Your task to perform on an android device: open chrome privacy settings Image 0: 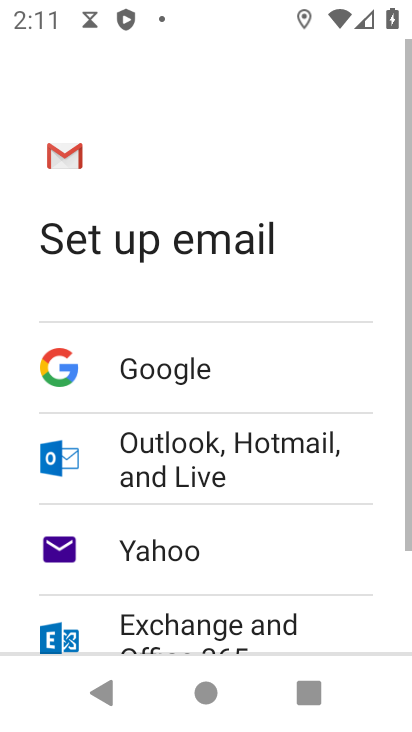
Step 0: press back button
Your task to perform on an android device: open chrome privacy settings Image 1: 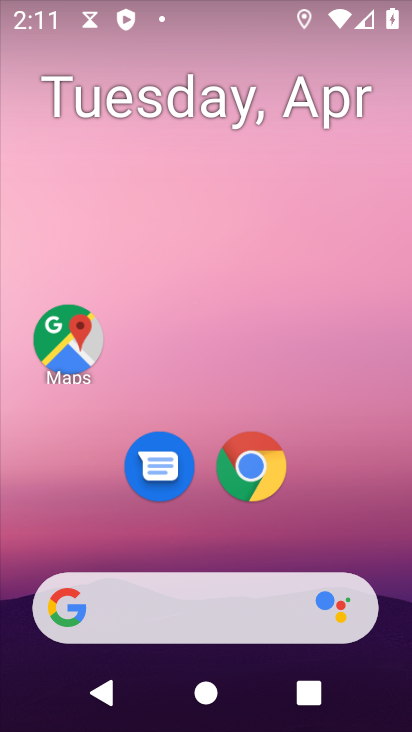
Step 1: click (252, 465)
Your task to perform on an android device: open chrome privacy settings Image 2: 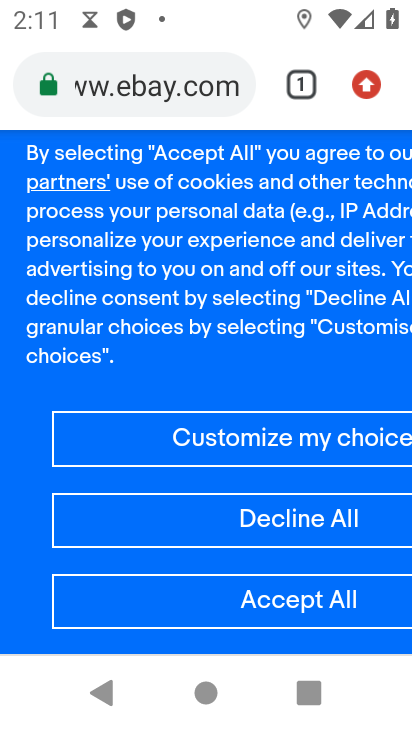
Step 2: drag from (369, 83) to (202, 526)
Your task to perform on an android device: open chrome privacy settings Image 3: 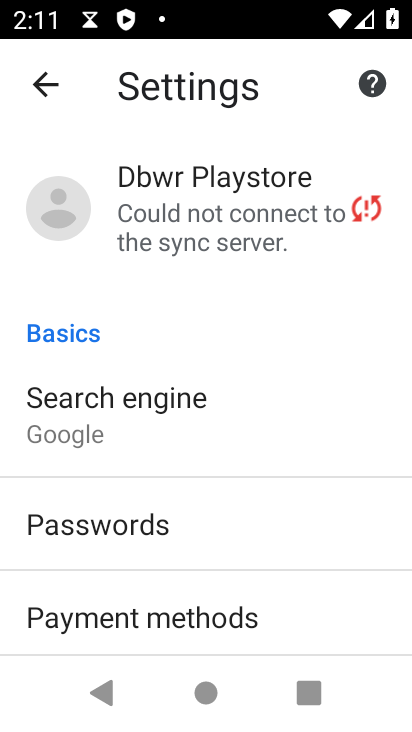
Step 3: drag from (237, 530) to (237, 278)
Your task to perform on an android device: open chrome privacy settings Image 4: 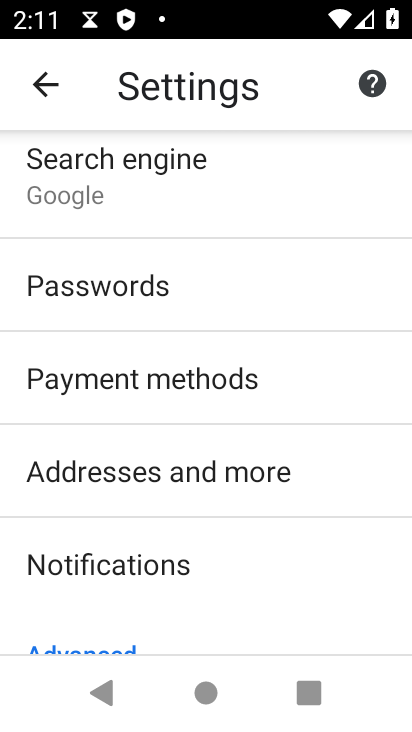
Step 4: drag from (226, 454) to (224, 247)
Your task to perform on an android device: open chrome privacy settings Image 5: 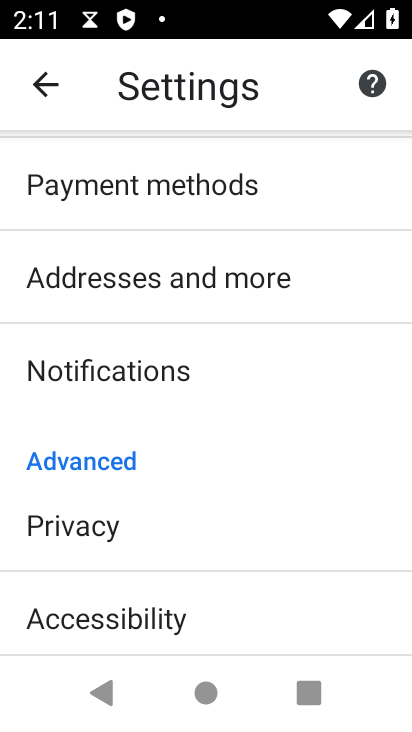
Step 5: click (155, 524)
Your task to perform on an android device: open chrome privacy settings Image 6: 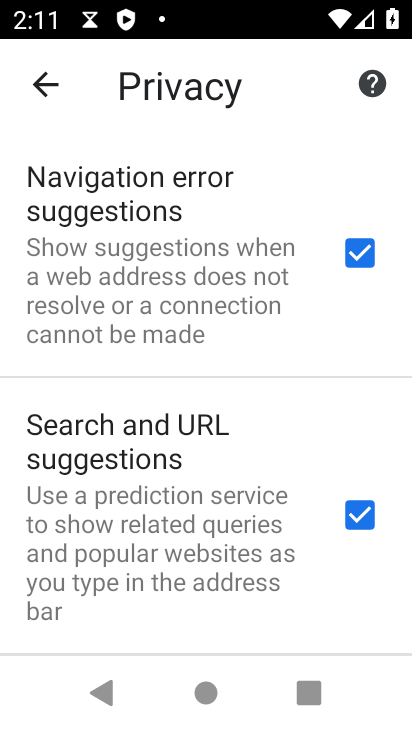
Step 6: task complete